Your task to perform on an android device: Open CNN.com Image 0: 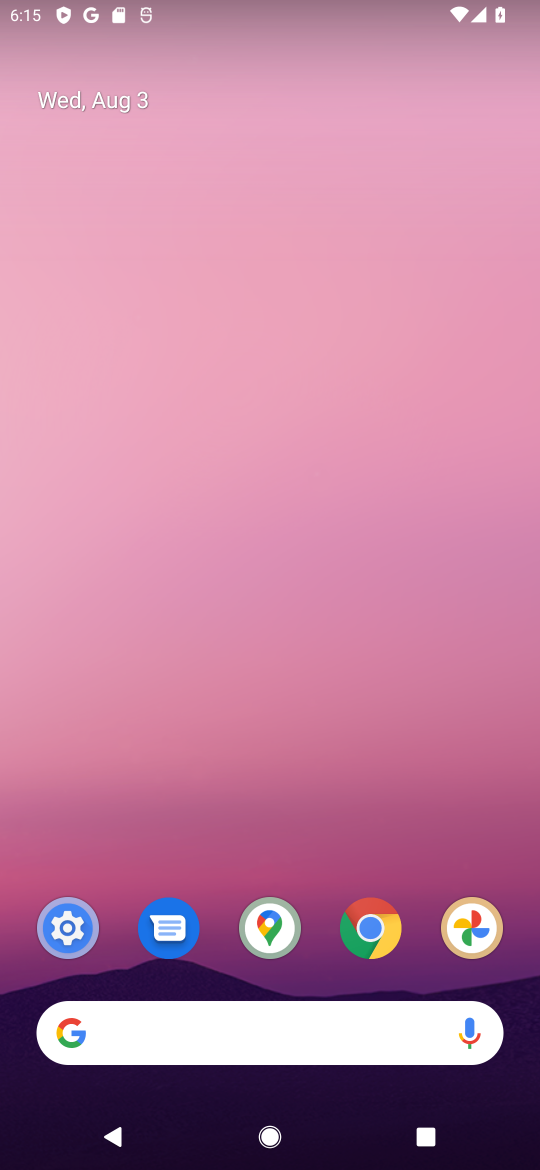
Step 0: press home button
Your task to perform on an android device: Open CNN.com Image 1: 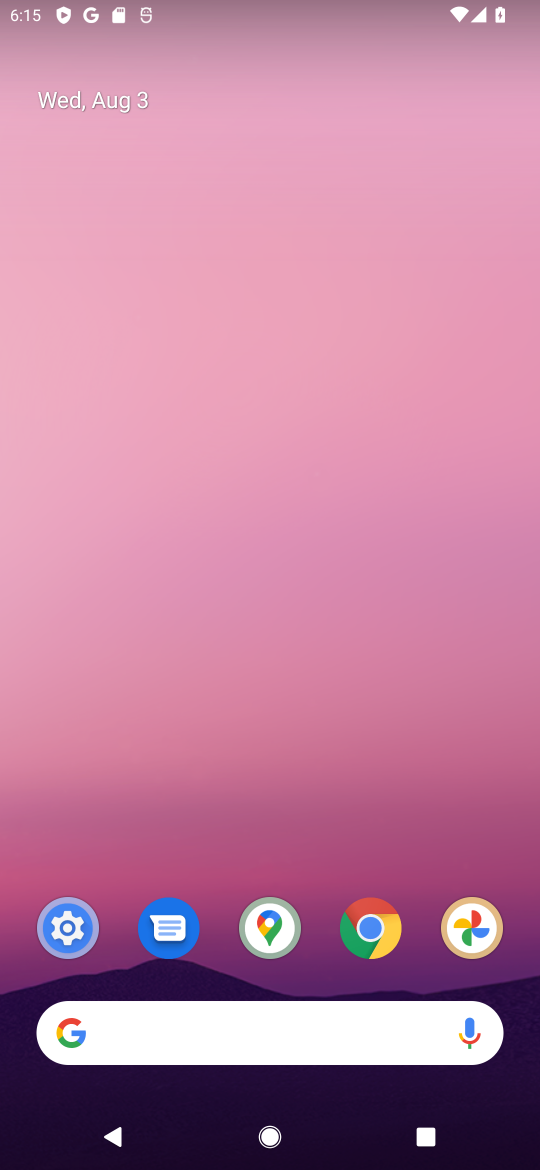
Step 1: drag from (293, 843) to (325, 97)
Your task to perform on an android device: Open CNN.com Image 2: 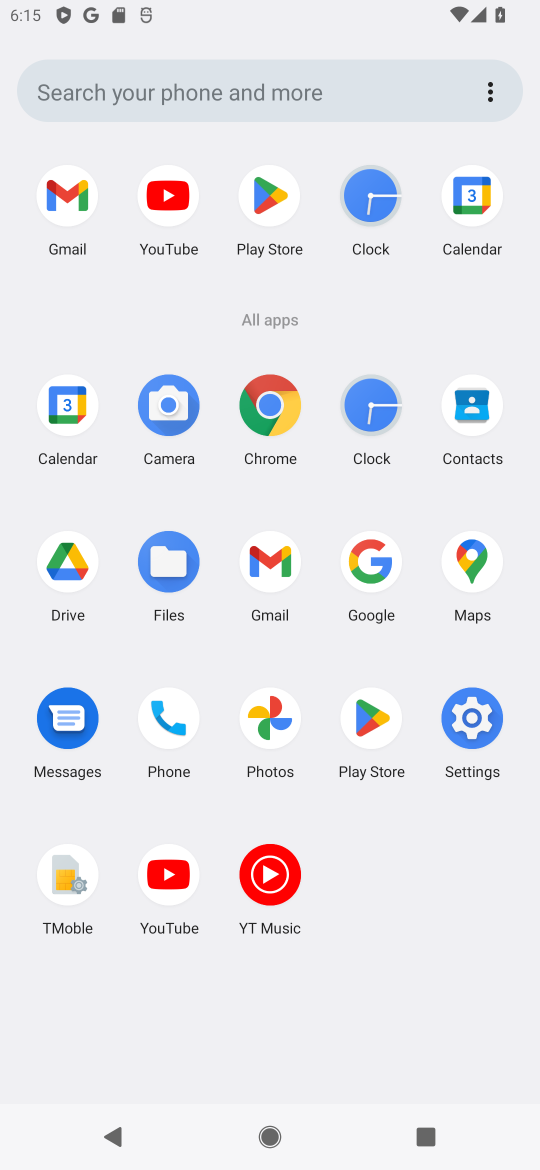
Step 2: click (273, 410)
Your task to perform on an android device: Open CNN.com Image 3: 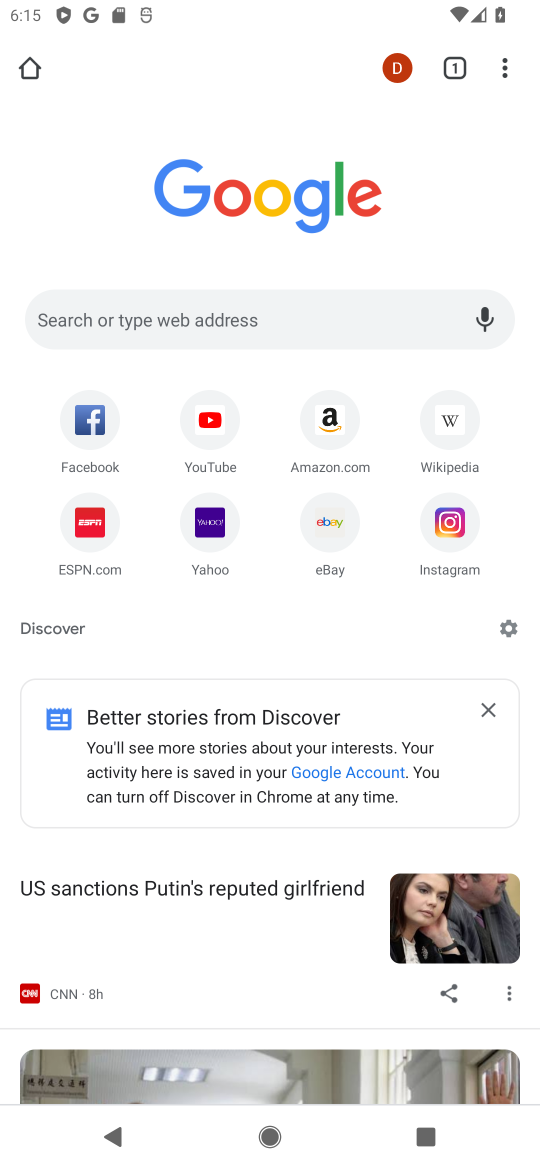
Step 3: click (287, 324)
Your task to perform on an android device: Open CNN.com Image 4: 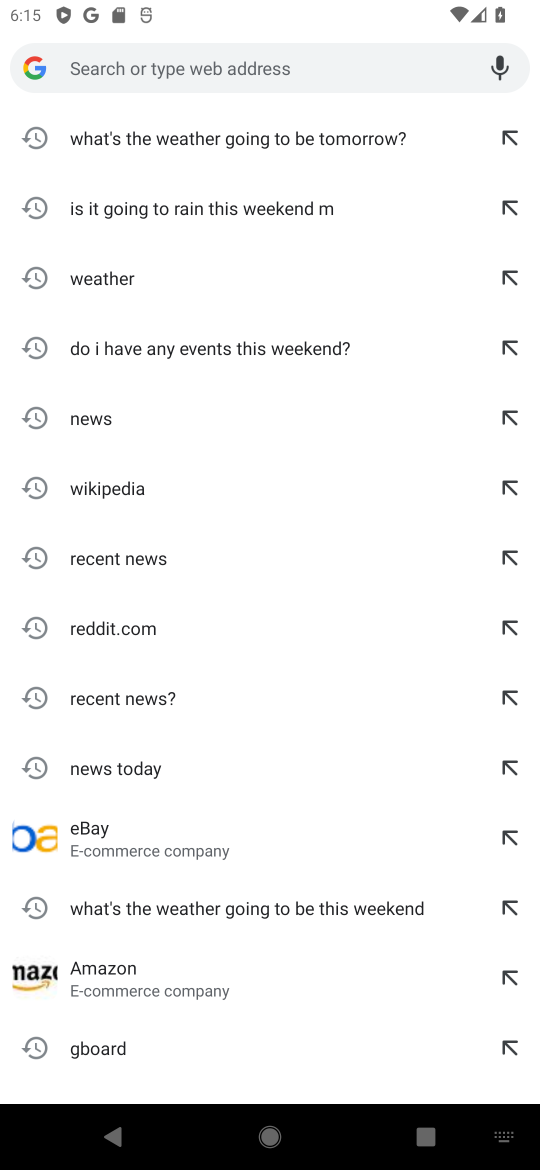
Step 4: type "cnn.com"
Your task to perform on an android device: Open CNN.com Image 5: 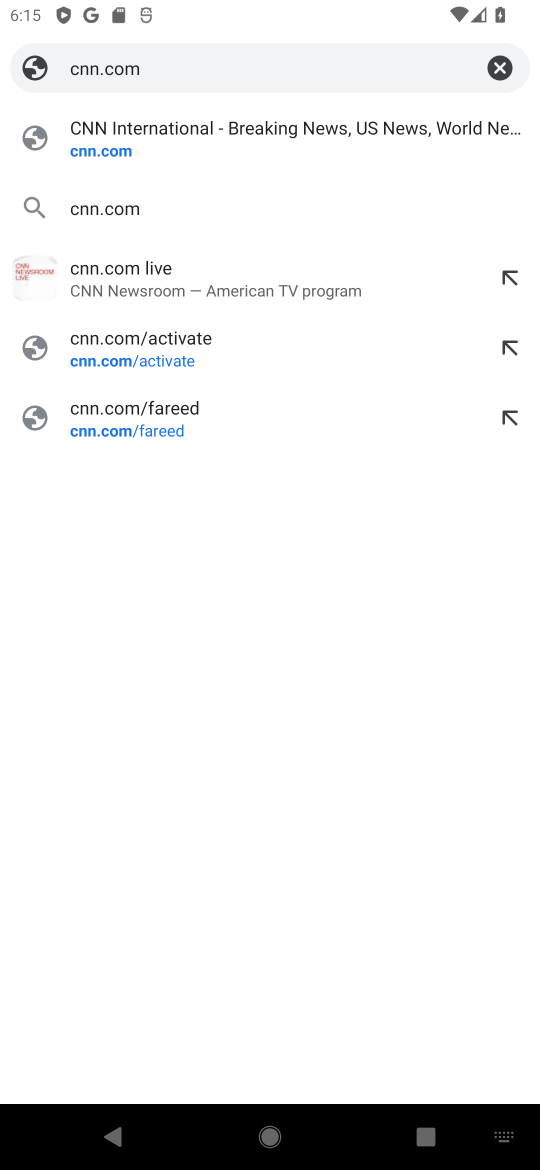
Step 5: click (305, 150)
Your task to perform on an android device: Open CNN.com Image 6: 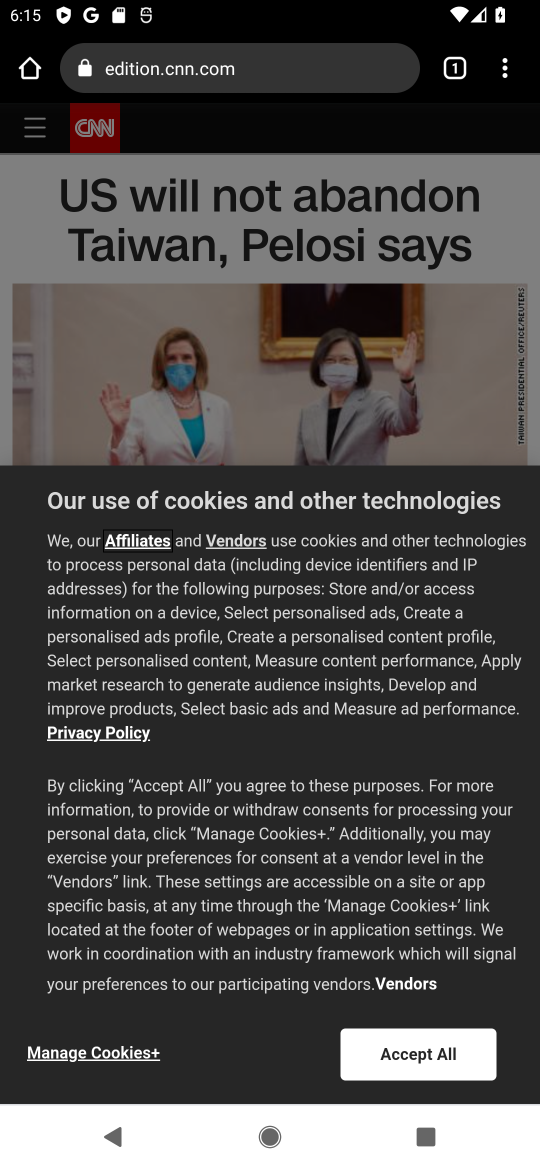
Step 6: task complete